Your task to perform on an android device: What's on Reddit Image 0: 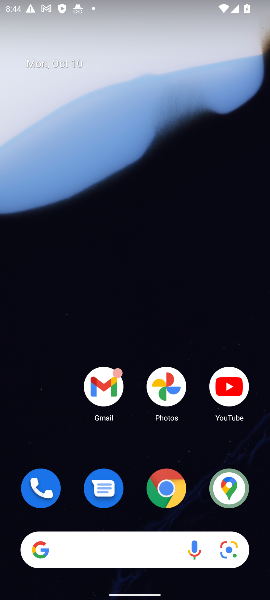
Step 0: drag from (133, 452) to (149, 18)
Your task to perform on an android device: What's on Reddit Image 1: 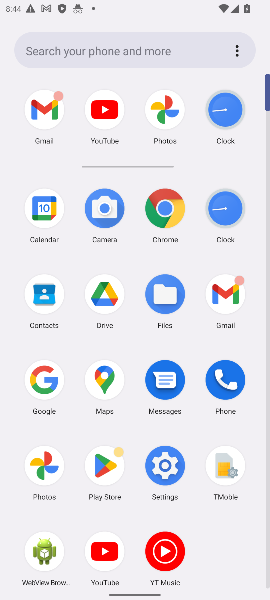
Step 1: click (169, 206)
Your task to perform on an android device: What's on Reddit Image 2: 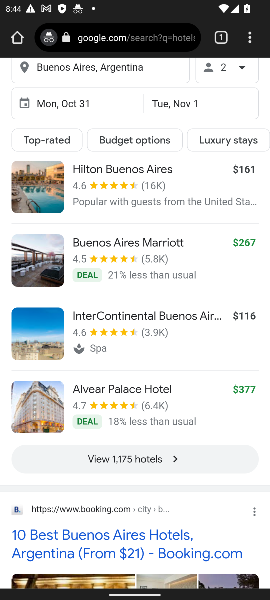
Step 2: click (142, 33)
Your task to perform on an android device: What's on Reddit Image 3: 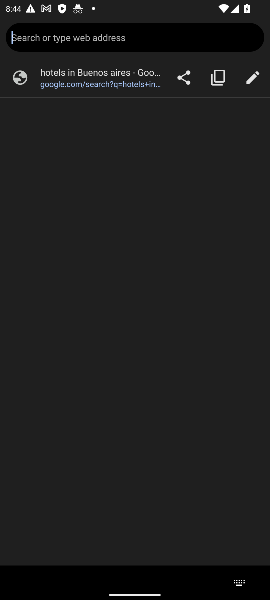
Step 3: type "reddit"
Your task to perform on an android device: What's on Reddit Image 4: 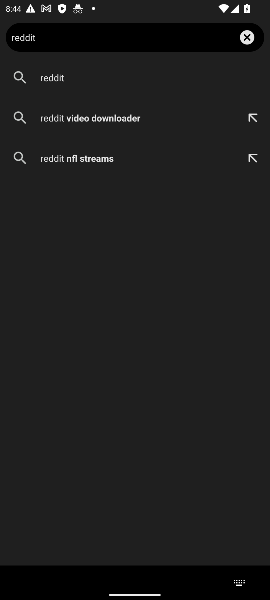
Step 4: click (106, 79)
Your task to perform on an android device: What's on Reddit Image 5: 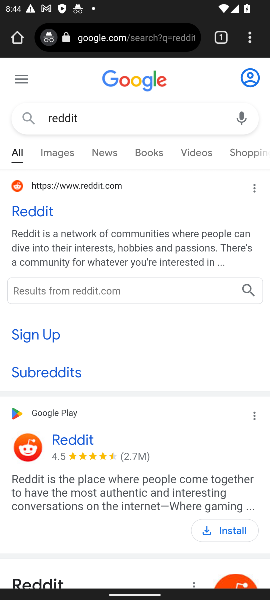
Step 5: click (31, 223)
Your task to perform on an android device: What's on Reddit Image 6: 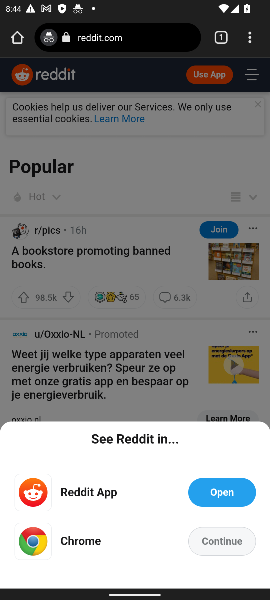
Step 6: click (222, 537)
Your task to perform on an android device: What's on Reddit Image 7: 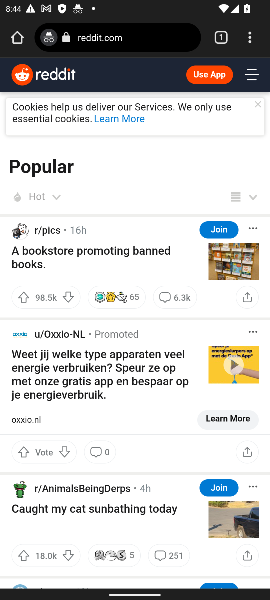
Step 7: task complete